Your task to perform on an android device: delete browsing data in the chrome app Image 0: 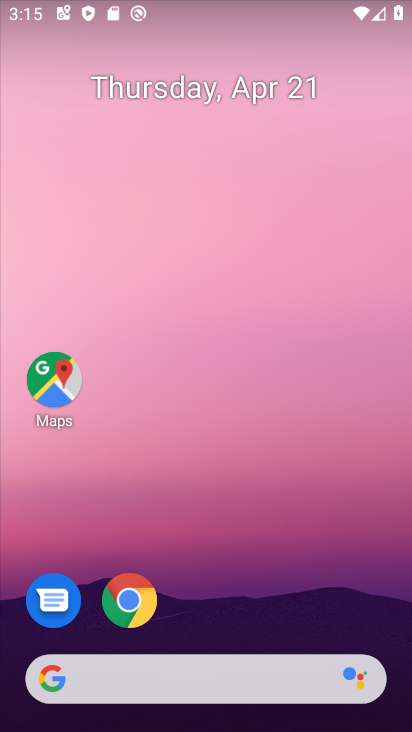
Step 0: click (130, 604)
Your task to perform on an android device: delete browsing data in the chrome app Image 1: 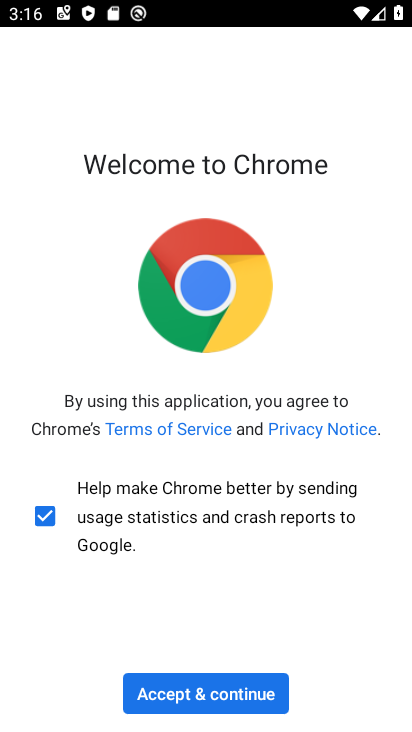
Step 1: click (202, 700)
Your task to perform on an android device: delete browsing data in the chrome app Image 2: 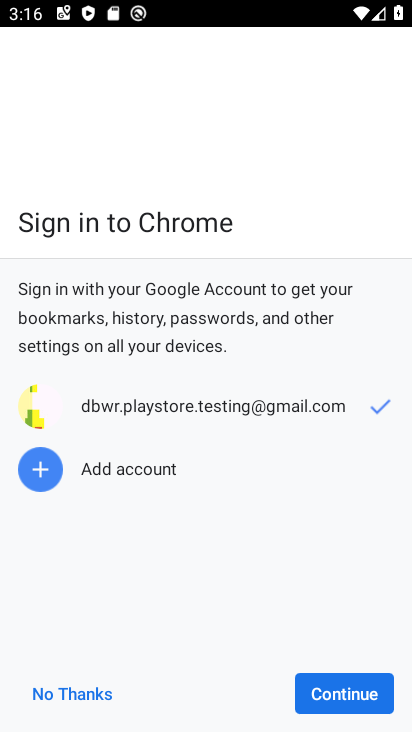
Step 2: click (332, 692)
Your task to perform on an android device: delete browsing data in the chrome app Image 3: 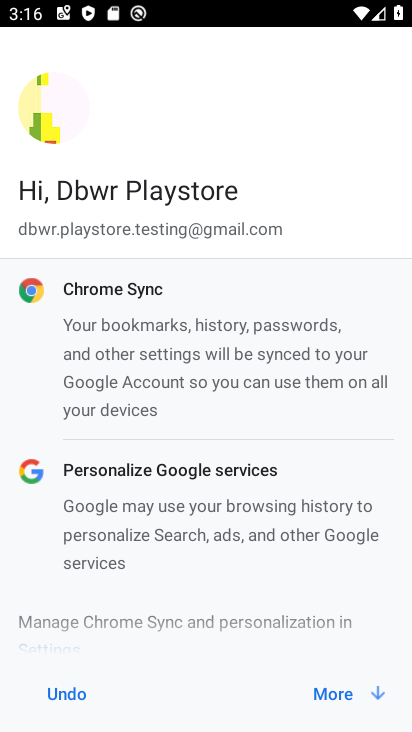
Step 3: click (332, 692)
Your task to perform on an android device: delete browsing data in the chrome app Image 4: 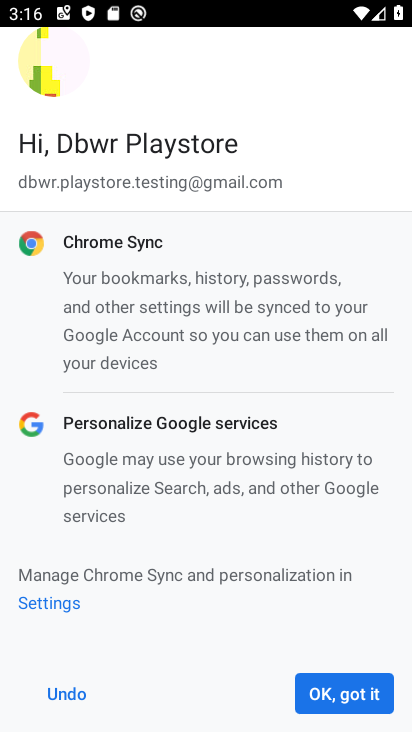
Step 4: click (332, 692)
Your task to perform on an android device: delete browsing data in the chrome app Image 5: 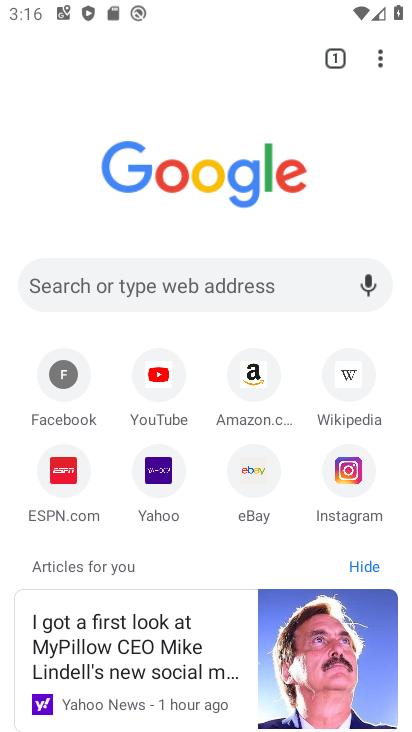
Step 5: click (381, 61)
Your task to perform on an android device: delete browsing data in the chrome app Image 6: 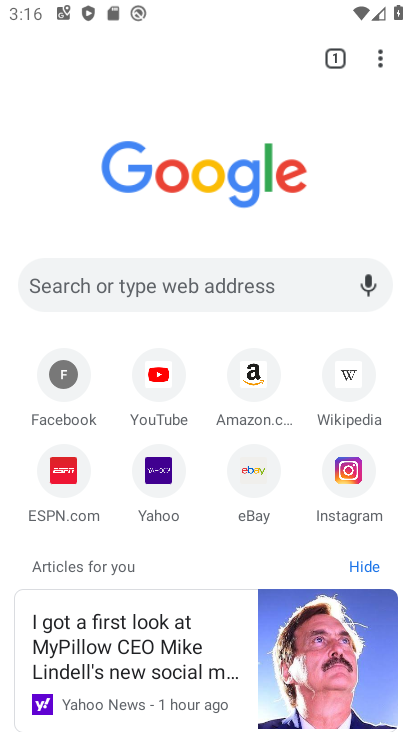
Step 6: click (381, 61)
Your task to perform on an android device: delete browsing data in the chrome app Image 7: 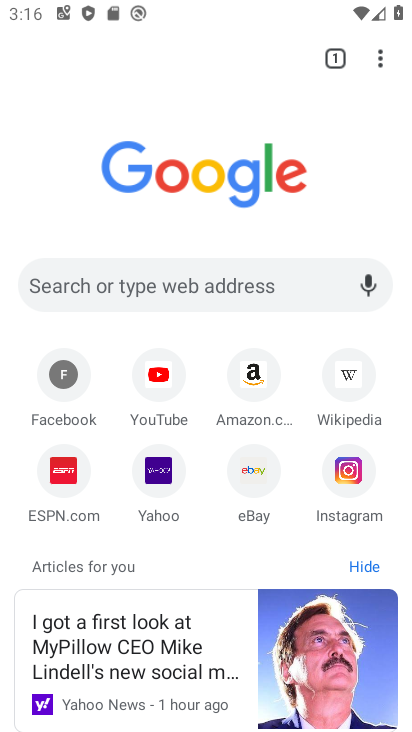
Step 7: click (388, 56)
Your task to perform on an android device: delete browsing data in the chrome app Image 8: 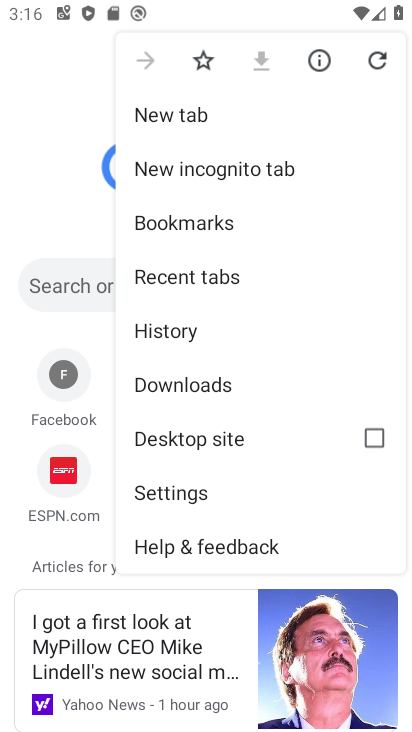
Step 8: click (183, 491)
Your task to perform on an android device: delete browsing data in the chrome app Image 9: 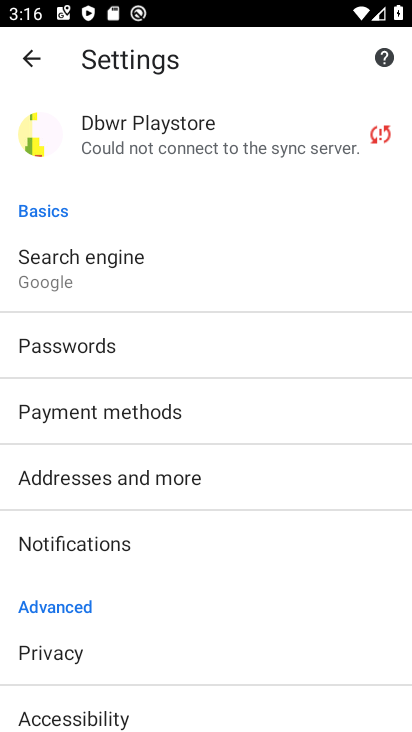
Step 9: drag from (176, 565) to (234, 325)
Your task to perform on an android device: delete browsing data in the chrome app Image 10: 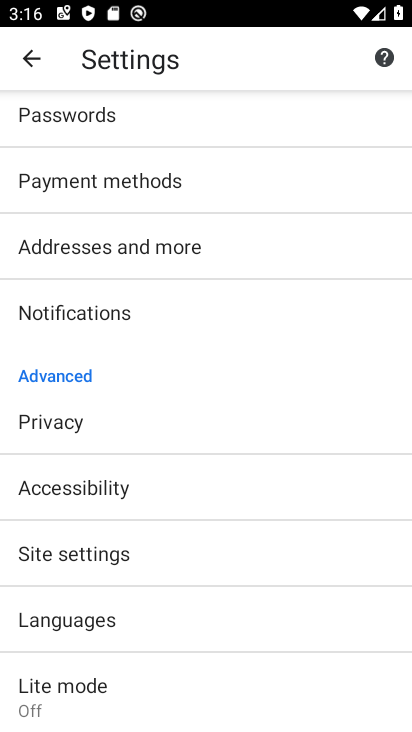
Step 10: click (56, 420)
Your task to perform on an android device: delete browsing data in the chrome app Image 11: 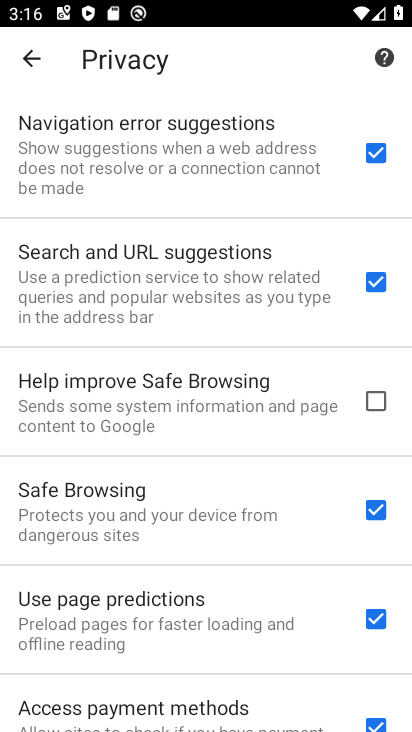
Step 11: drag from (182, 530) to (215, 357)
Your task to perform on an android device: delete browsing data in the chrome app Image 12: 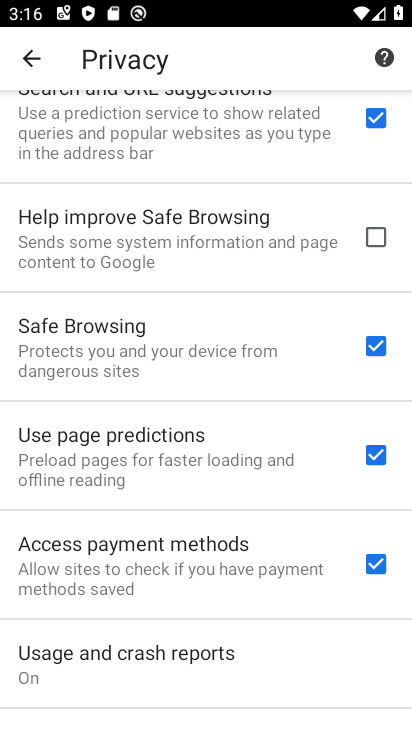
Step 12: drag from (224, 436) to (256, 315)
Your task to perform on an android device: delete browsing data in the chrome app Image 13: 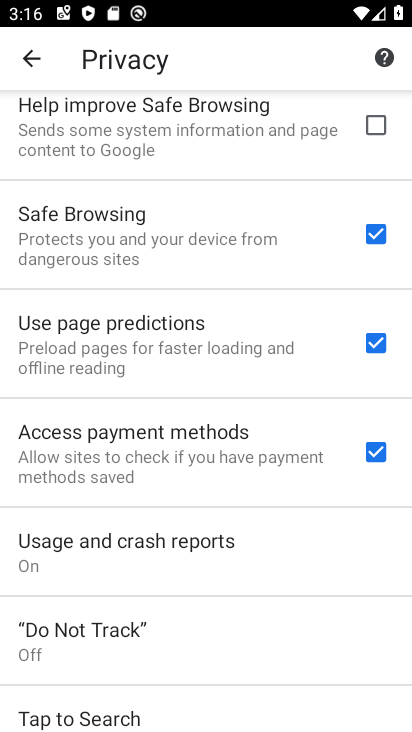
Step 13: drag from (205, 408) to (272, 306)
Your task to perform on an android device: delete browsing data in the chrome app Image 14: 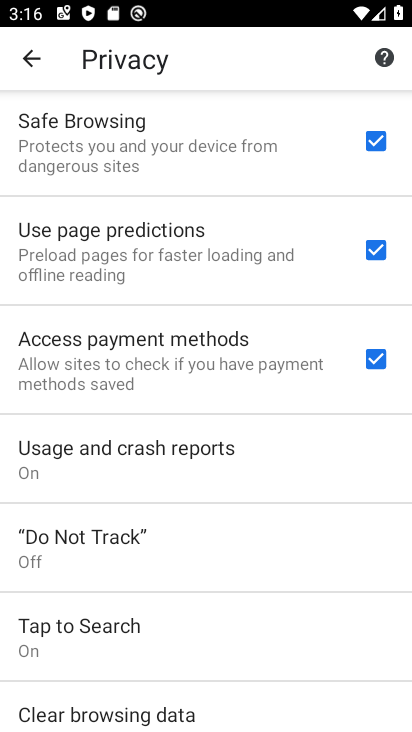
Step 14: drag from (204, 431) to (272, 306)
Your task to perform on an android device: delete browsing data in the chrome app Image 15: 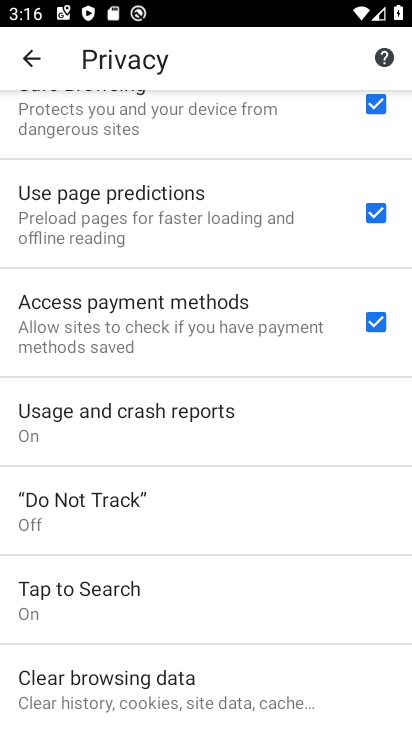
Step 15: drag from (195, 483) to (241, 329)
Your task to perform on an android device: delete browsing data in the chrome app Image 16: 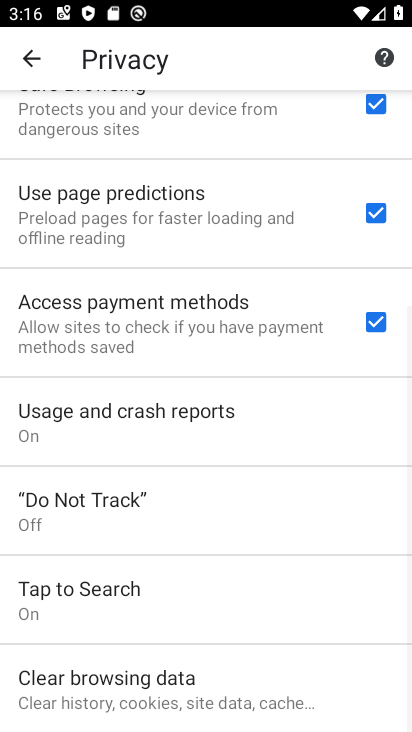
Step 16: click (152, 673)
Your task to perform on an android device: delete browsing data in the chrome app Image 17: 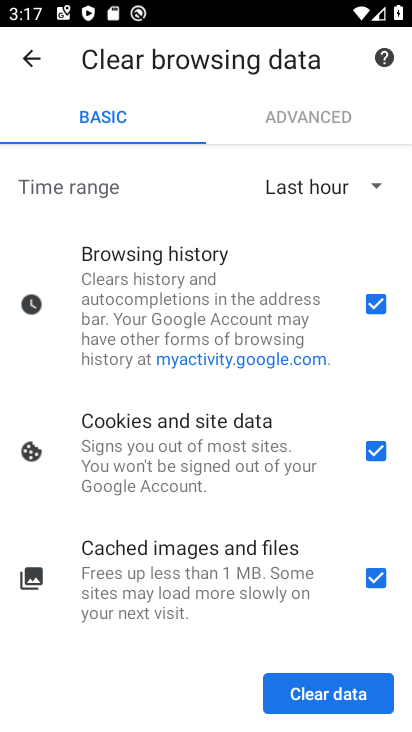
Step 17: click (289, 700)
Your task to perform on an android device: delete browsing data in the chrome app Image 18: 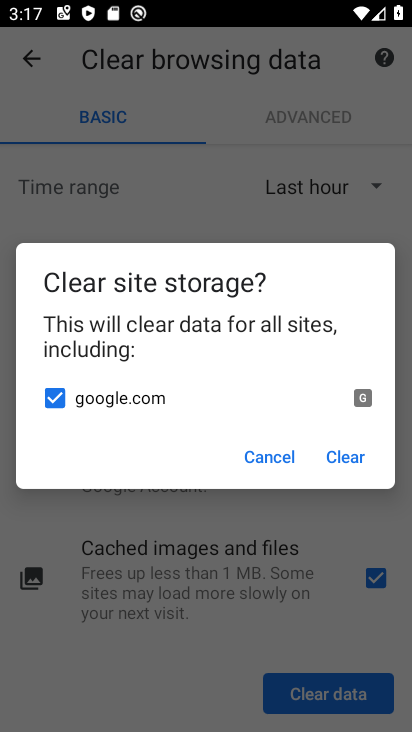
Step 18: click (354, 454)
Your task to perform on an android device: delete browsing data in the chrome app Image 19: 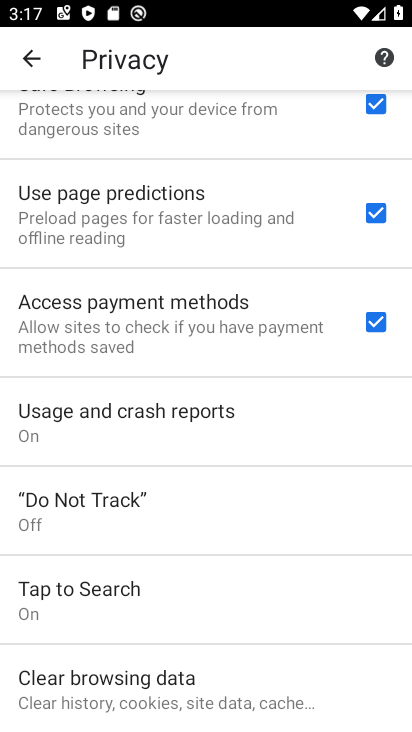
Step 19: task complete